Your task to perform on an android device: turn off data saver in the chrome app Image 0: 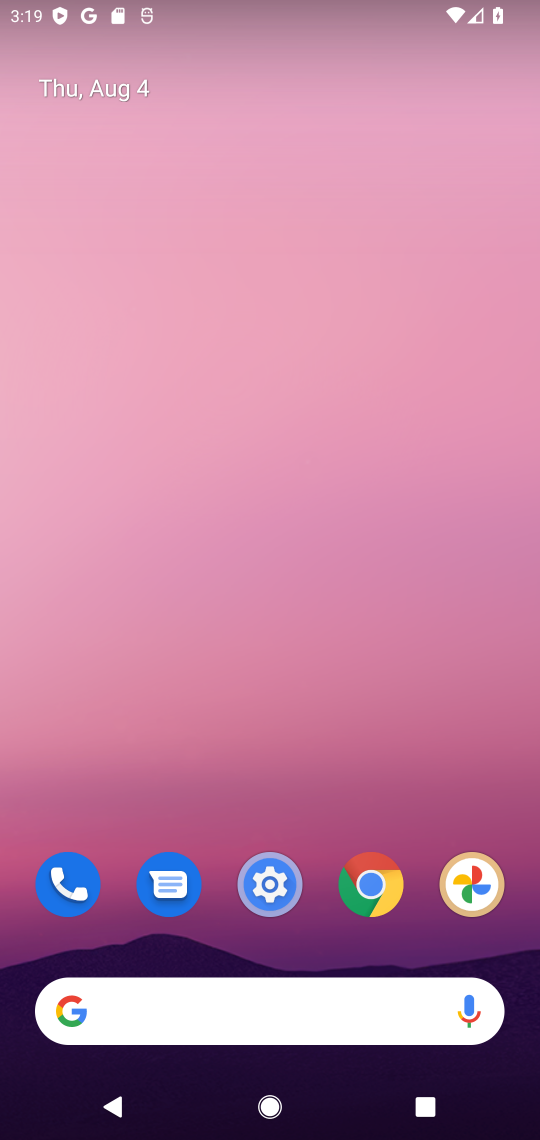
Step 0: drag from (220, 919) to (259, 320)
Your task to perform on an android device: turn off data saver in the chrome app Image 1: 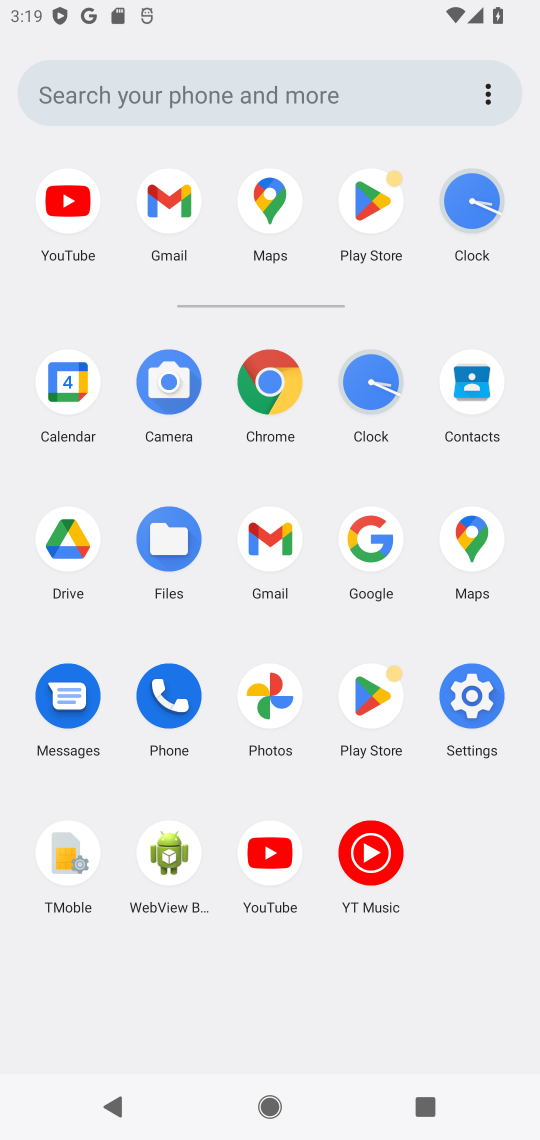
Step 1: click (279, 369)
Your task to perform on an android device: turn off data saver in the chrome app Image 2: 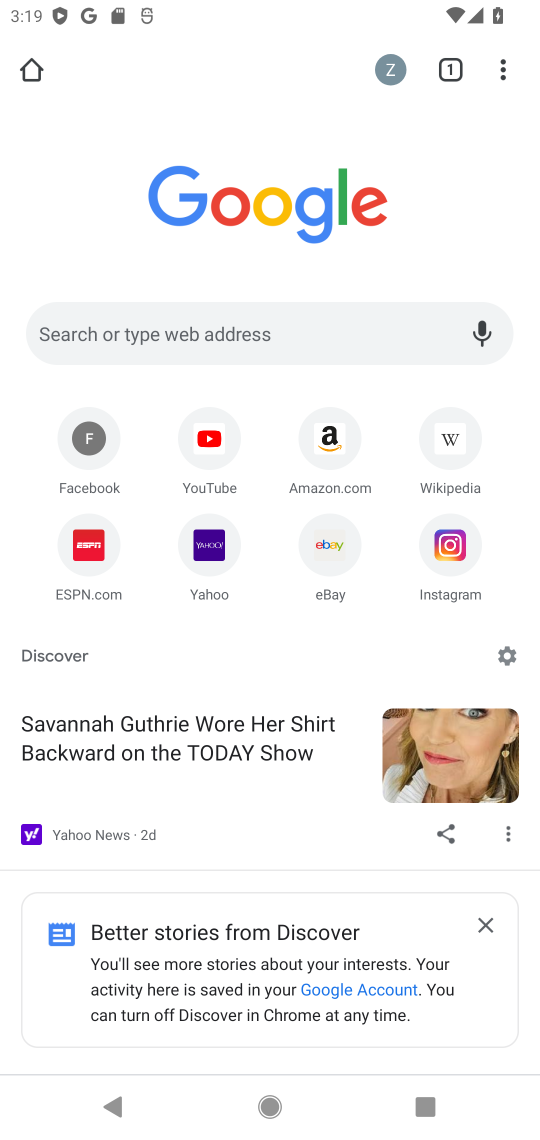
Step 2: drag from (250, 1040) to (288, 367)
Your task to perform on an android device: turn off data saver in the chrome app Image 3: 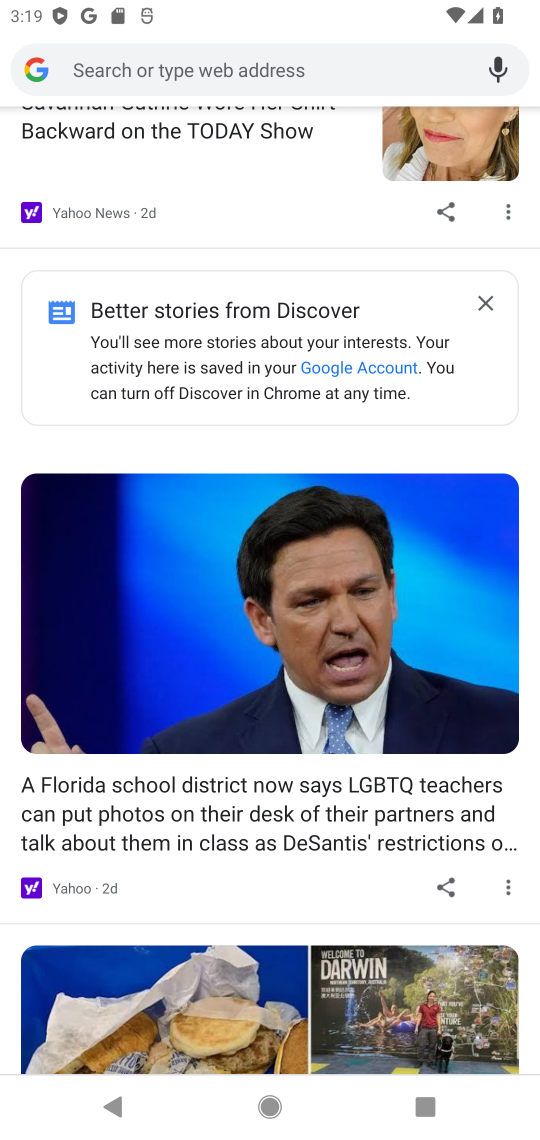
Step 3: drag from (295, 467) to (359, 997)
Your task to perform on an android device: turn off data saver in the chrome app Image 4: 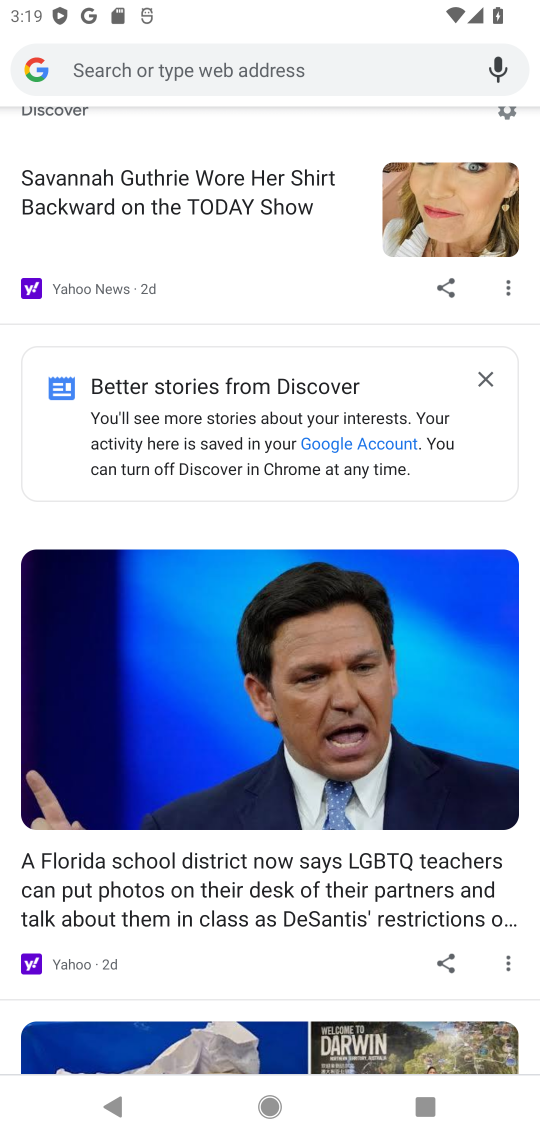
Step 4: drag from (313, 250) to (393, 987)
Your task to perform on an android device: turn off data saver in the chrome app Image 5: 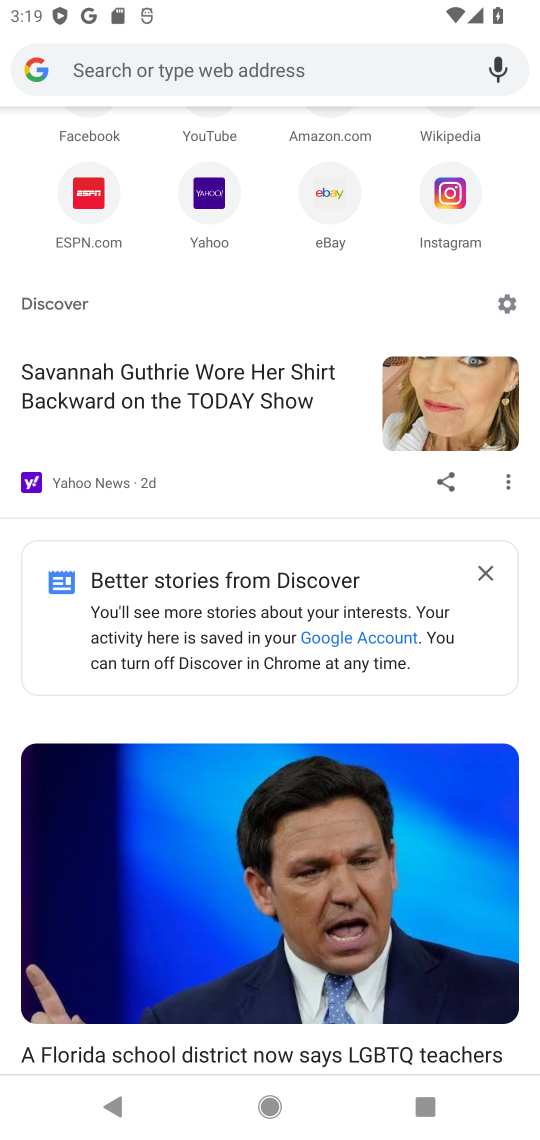
Step 5: drag from (266, 257) to (399, 1076)
Your task to perform on an android device: turn off data saver in the chrome app Image 6: 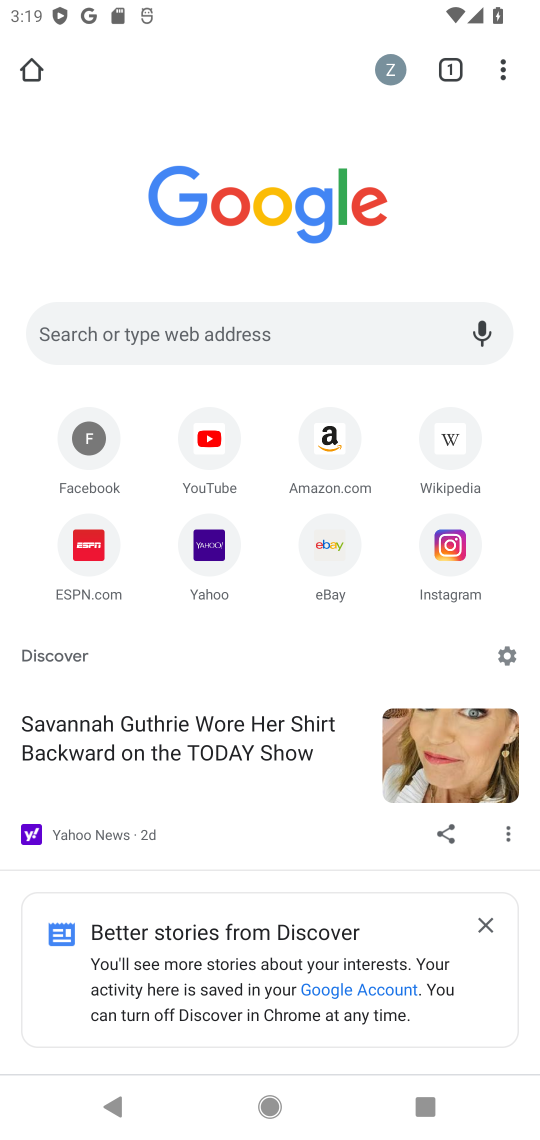
Step 6: drag from (500, 61) to (346, 686)
Your task to perform on an android device: turn off data saver in the chrome app Image 7: 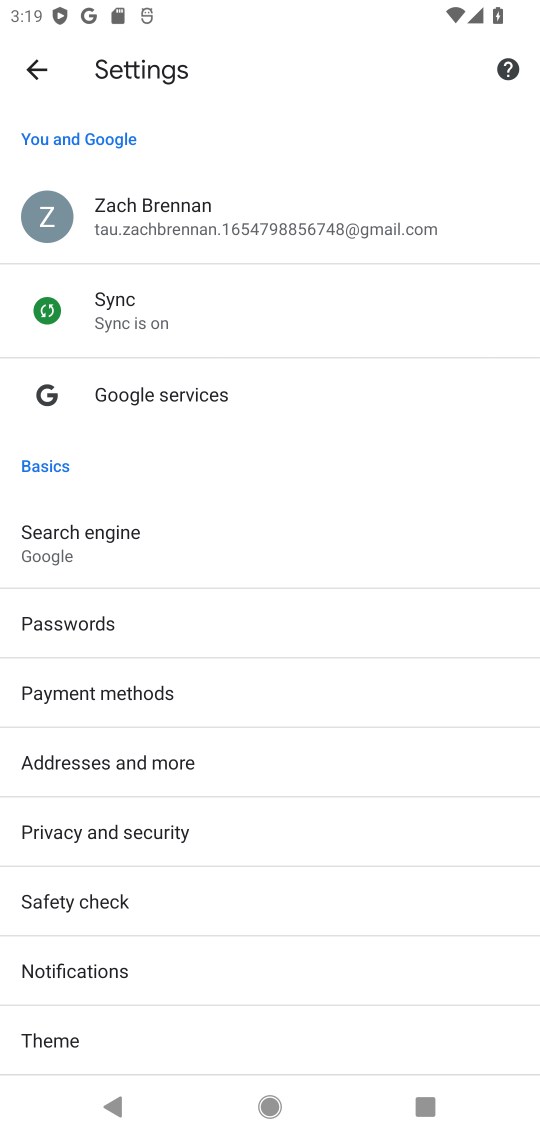
Step 7: drag from (248, 987) to (406, 333)
Your task to perform on an android device: turn off data saver in the chrome app Image 8: 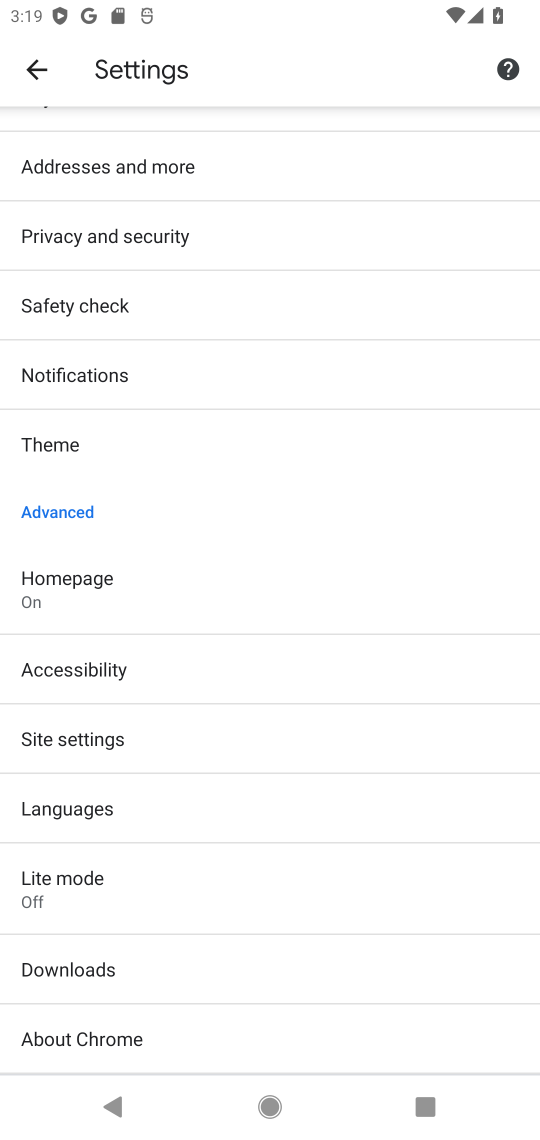
Step 8: click (212, 903)
Your task to perform on an android device: turn off data saver in the chrome app Image 9: 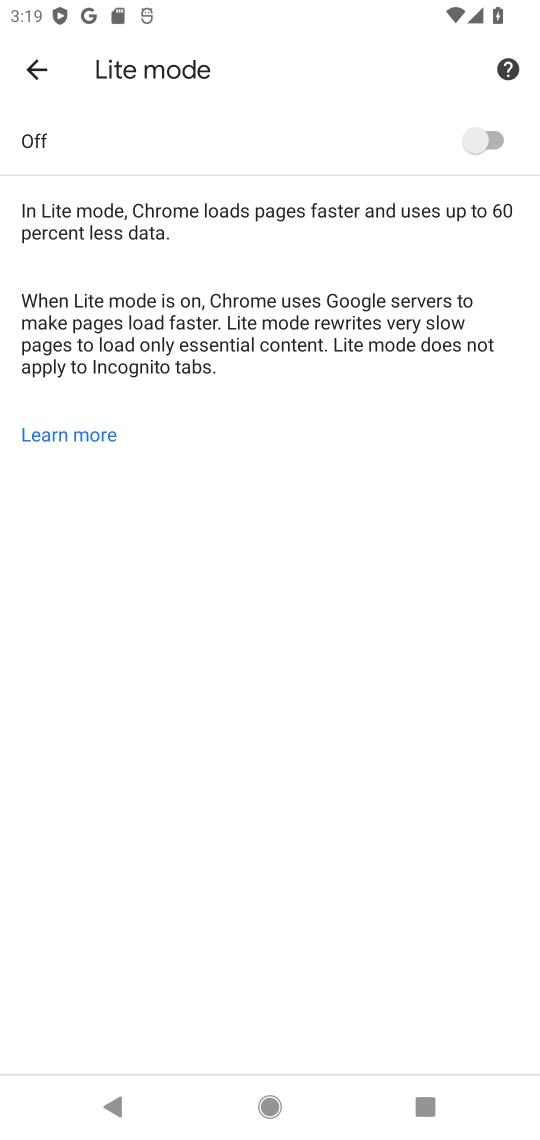
Step 9: task complete